Your task to perform on an android device: Go to eBay Image 0: 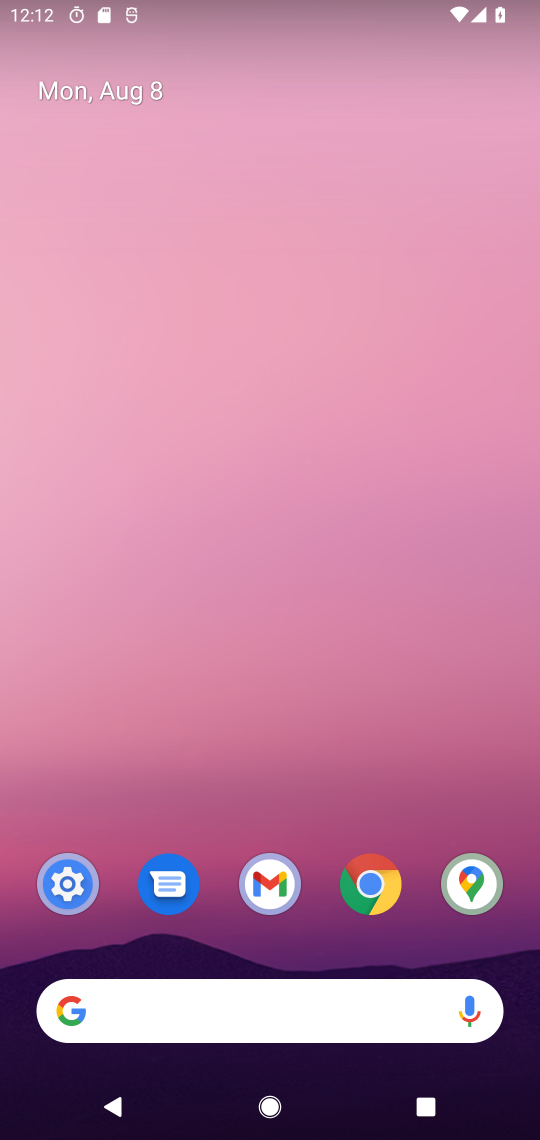
Step 0: click (377, 904)
Your task to perform on an android device: Go to eBay Image 1: 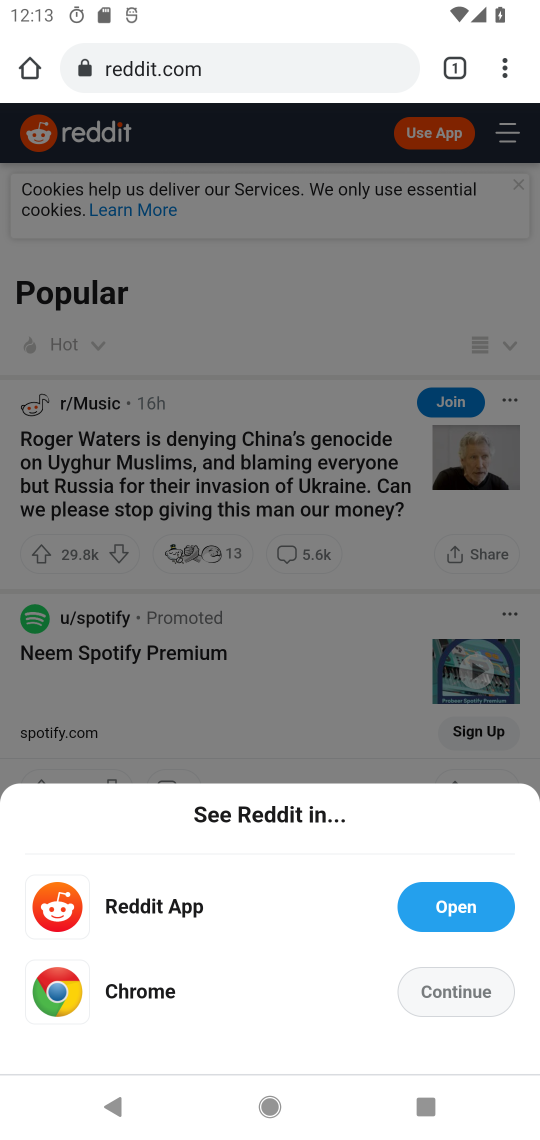
Step 1: click (487, 990)
Your task to perform on an android device: Go to eBay Image 2: 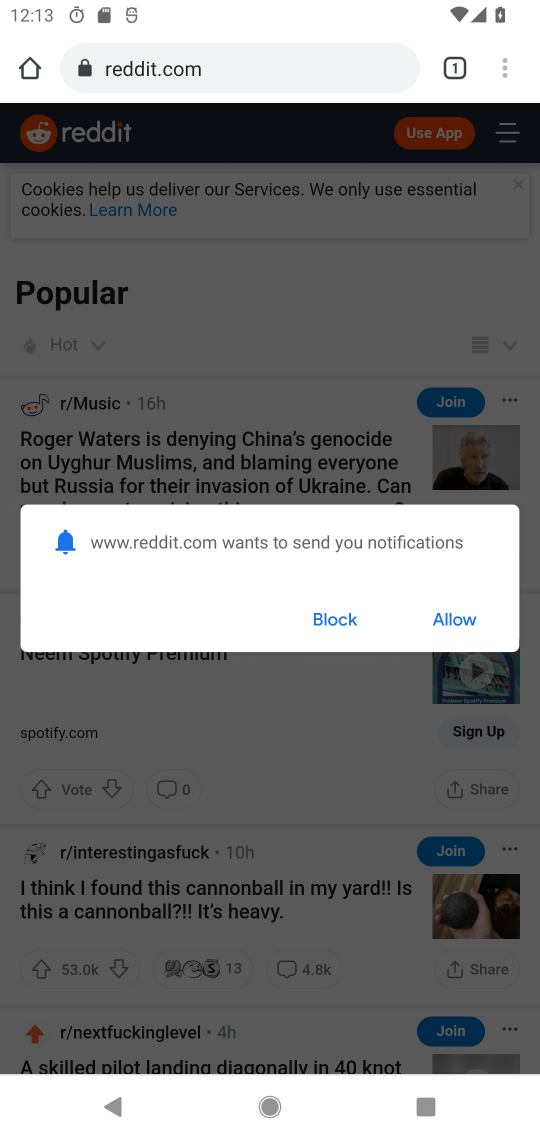
Step 2: click (427, 608)
Your task to perform on an android device: Go to eBay Image 3: 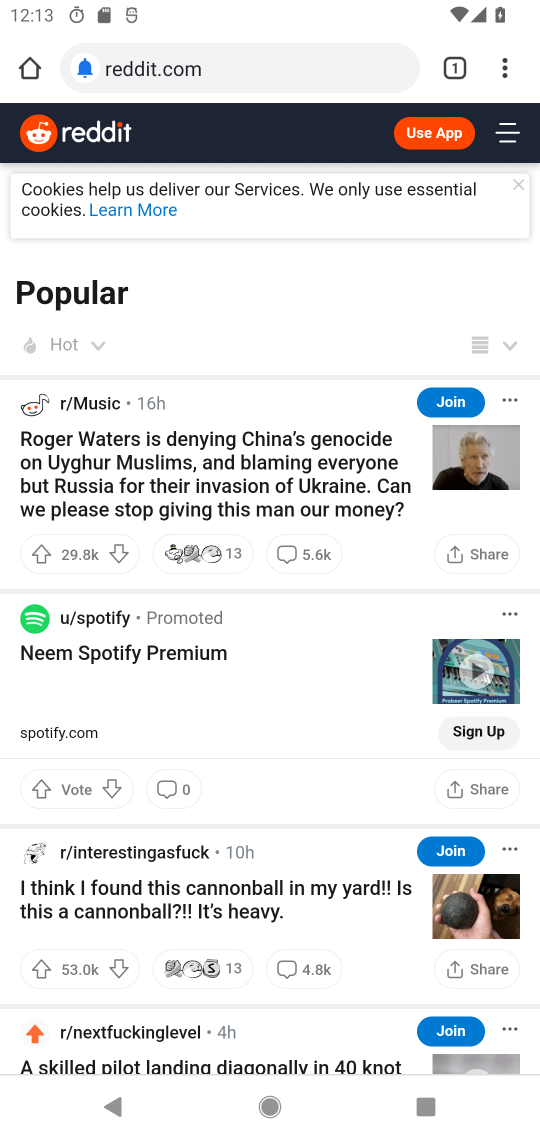
Step 3: click (165, 77)
Your task to perform on an android device: Go to eBay Image 4: 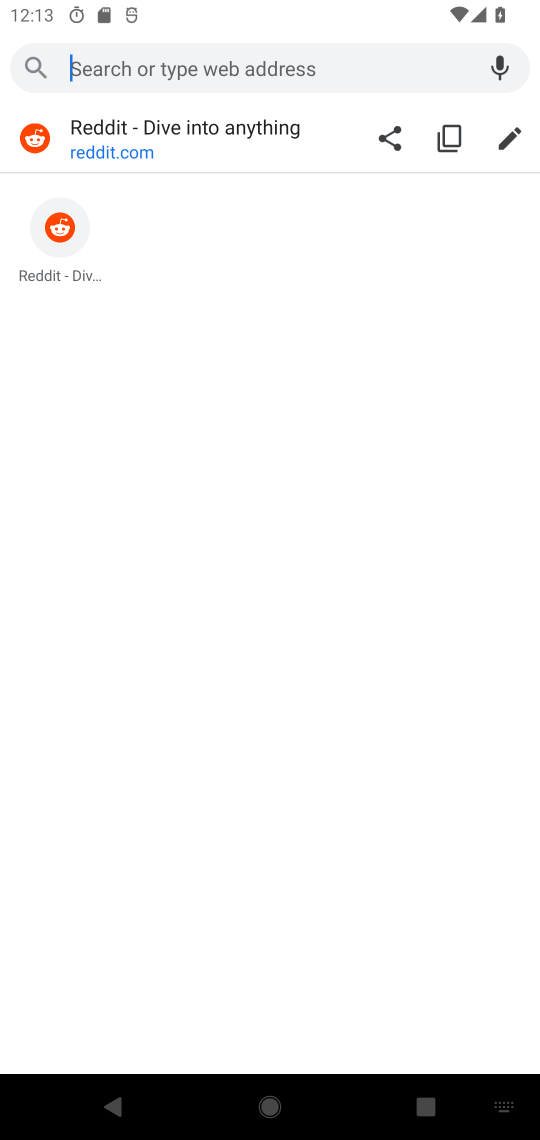
Step 4: type "www.ebay.com"
Your task to perform on an android device: Go to eBay Image 5: 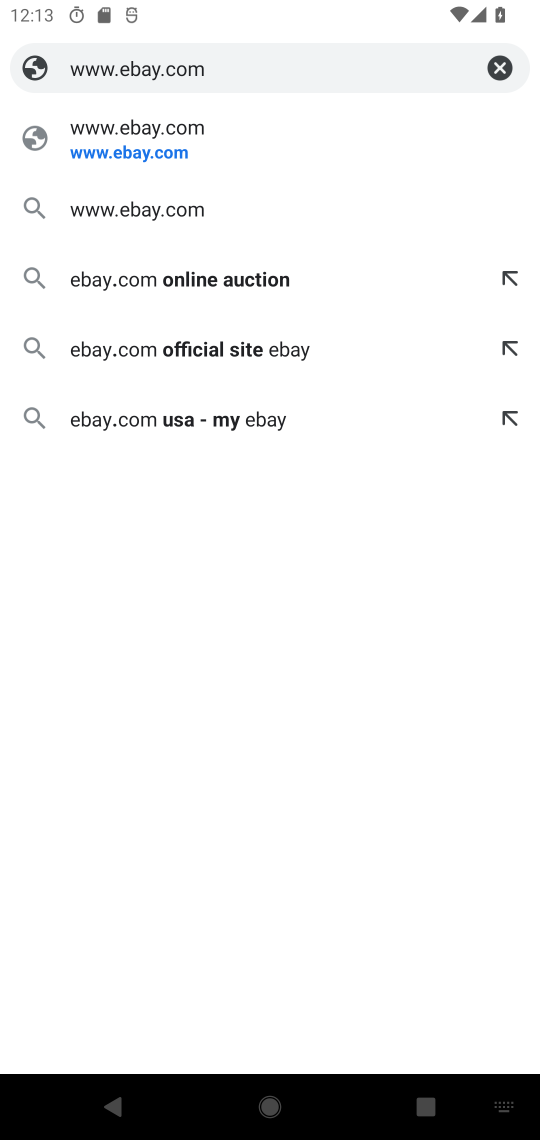
Step 5: click (120, 155)
Your task to perform on an android device: Go to eBay Image 6: 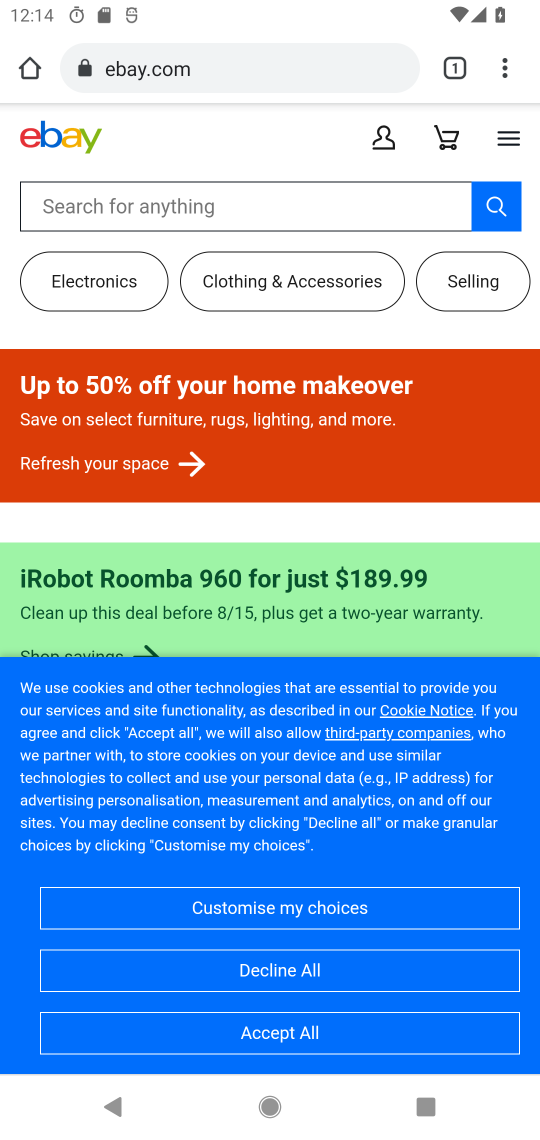
Step 6: task complete